Your task to perform on an android device: What is the news today? Image 0: 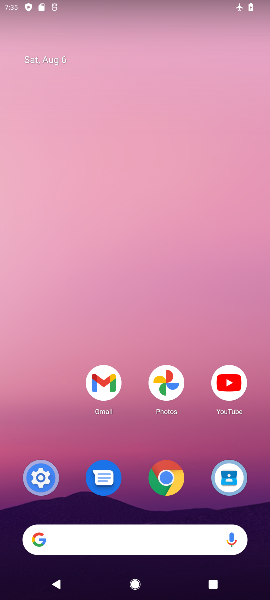
Step 0: press home button
Your task to perform on an android device: What is the news today? Image 1: 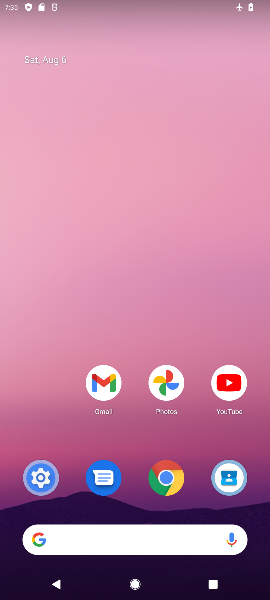
Step 1: click (38, 536)
Your task to perform on an android device: What is the news today? Image 2: 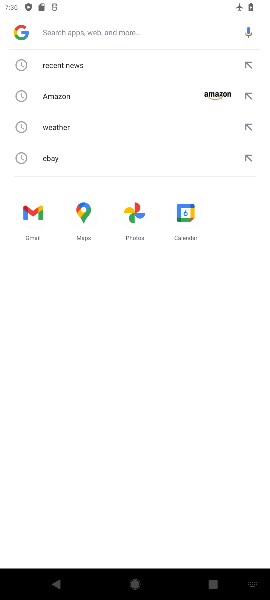
Step 2: type "news today"
Your task to perform on an android device: What is the news today? Image 3: 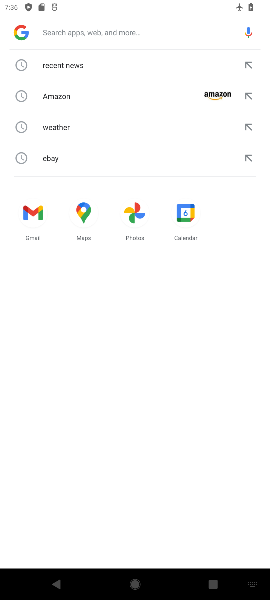
Step 3: click (72, 28)
Your task to perform on an android device: What is the news today? Image 4: 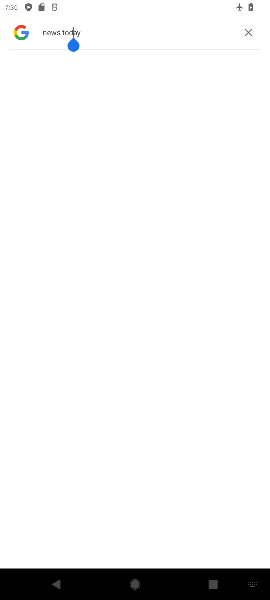
Step 4: press enter
Your task to perform on an android device: What is the news today? Image 5: 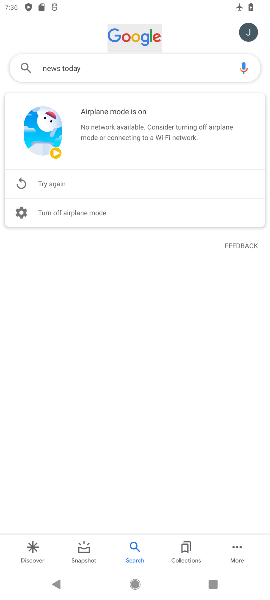
Step 5: drag from (175, 2) to (172, 588)
Your task to perform on an android device: What is the news today? Image 6: 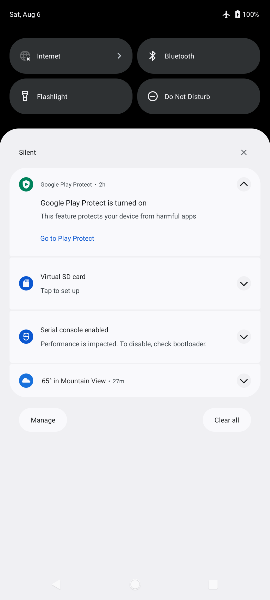
Step 6: drag from (137, 143) to (142, 527)
Your task to perform on an android device: What is the news today? Image 7: 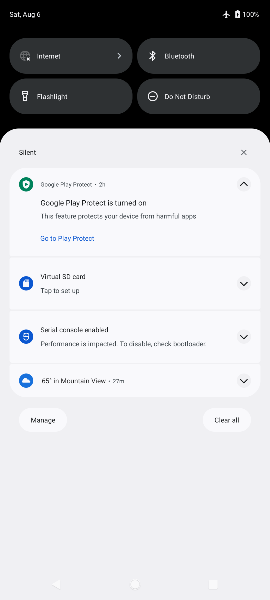
Step 7: drag from (140, 142) to (155, 493)
Your task to perform on an android device: What is the news today? Image 8: 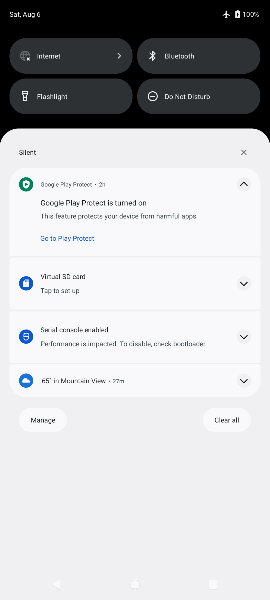
Step 8: drag from (126, 135) to (103, 591)
Your task to perform on an android device: What is the news today? Image 9: 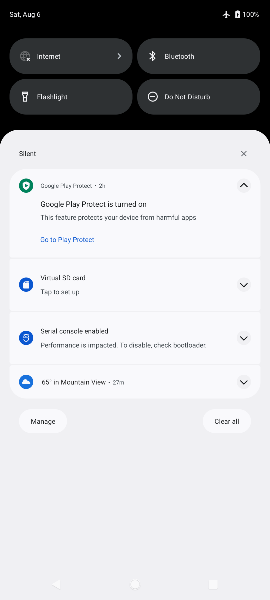
Step 9: click (197, 228)
Your task to perform on an android device: What is the news today? Image 10: 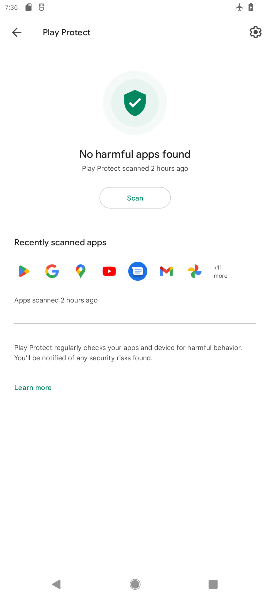
Step 10: drag from (140, 7) to (180, 527)
Your task to perform on an android device: What is the news today? Image 11: 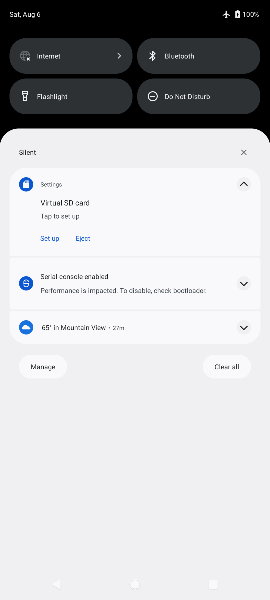
Step 11: drag from (167, 160) to (253, 557)
Your task to perform on an android device: What is the news today? Image 12: 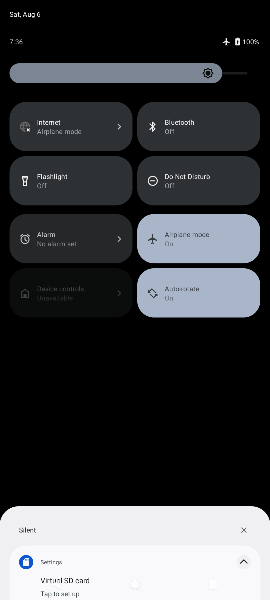
Step 12: drag from (149, 542) to (176, 599)
Your task to perform on an android device: What is the news today? Image 13: 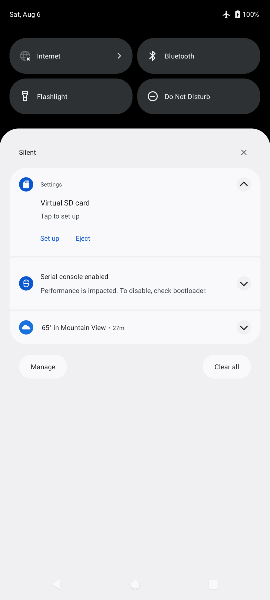
Step 13: click (239, 170)
Your task to perform on an android device: What is the news today? Image 14: 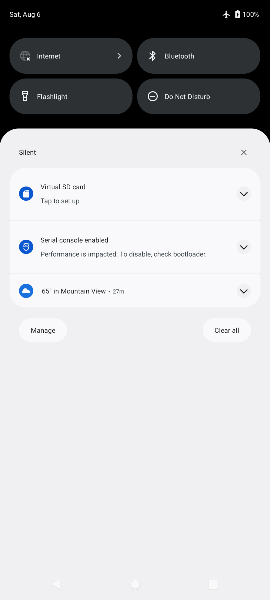
Step 14: click (243, 149)
Your task to perform on an android device: What is the news today? Image 15: 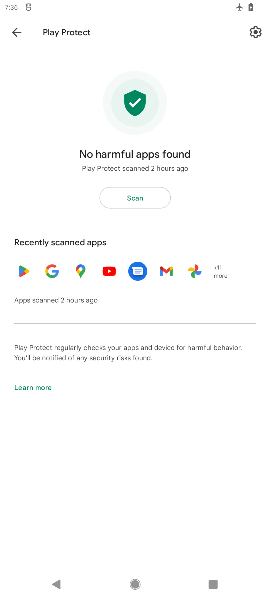
Step 15: drag from (160, 14) to (144, 544)
Your task to perform on an android device: What is the news today? Image 16: 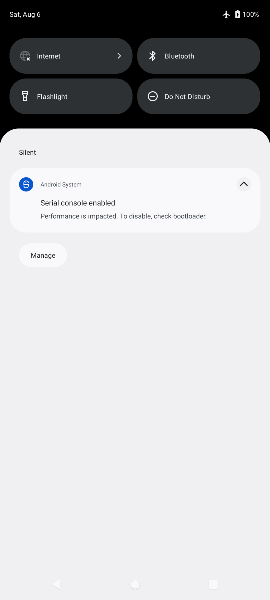
Step 16: drag from (145, 138) to (259, 299)
Your task to perform on an android device: What is the news today? Image 17: 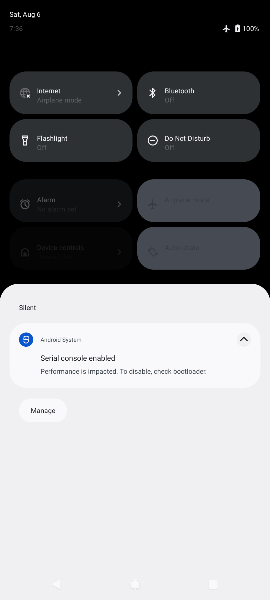
Step 17: click (219, 211)
Your task to perform on an android device: What is the news today? Image 18: 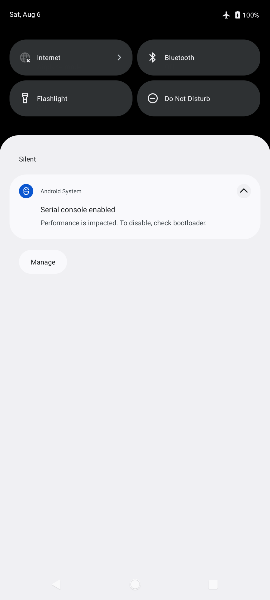
Step 18: click (218, 223)
Your task to perform on an android device: What is the news today? Image 19: 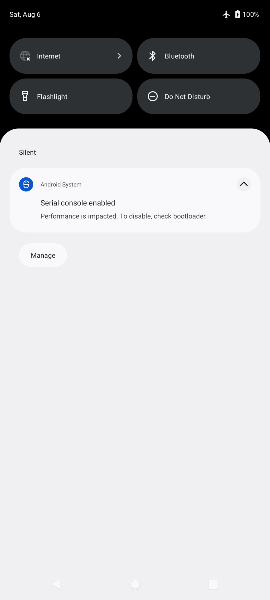
Step 19: drag from (159, 152) to (214, 576)
Your task to perform on an android device: What is the news today? Image 20: 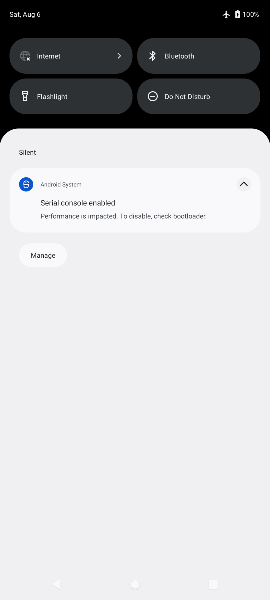
Step 20: press home button
Your task to perform on an android device: What is the news today? Image 21: 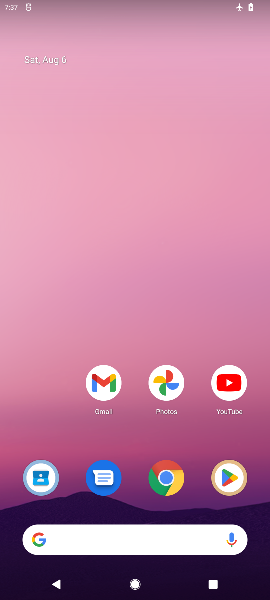
Step 21: drag from (147, 323) to (243, 414)
Your task to perform on an android device: What is the news today? Image 22: 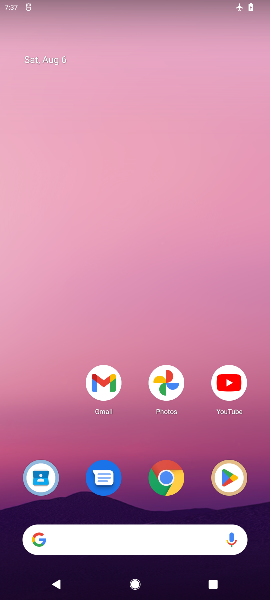
Step 22: drag from (55, 397) to (70, 40)
Your task to perform on an android device: What is the news today? Image 23: 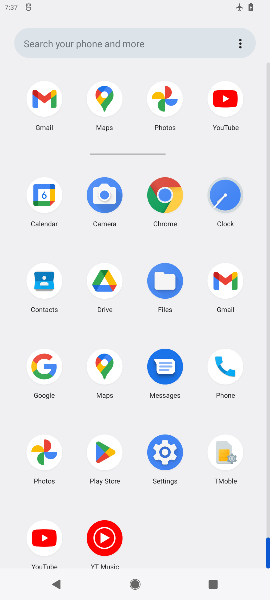
Step 23: click (166, 453)
Your task to perform on an android device: What is the news today? Image 24: 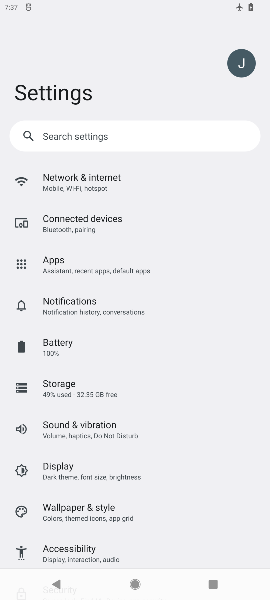
Step 24: click (74, 177)
Your task to perform on an android device: What is the news today? Image 25: 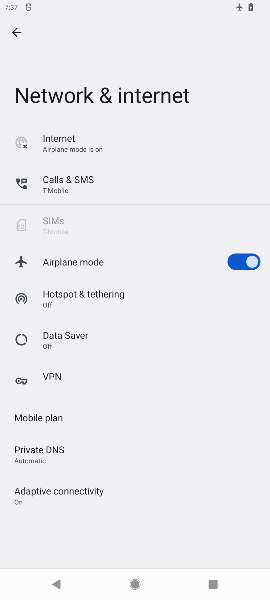
Step 25: click (238, 261)
Your task to perform on an android device: What is the news today? Image 26: 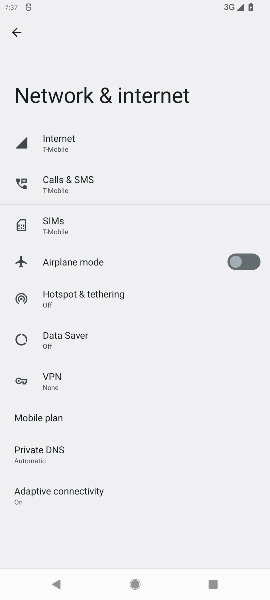
Step 26: press home button
Your task to perform on an android device: What is the news today? Image 27: 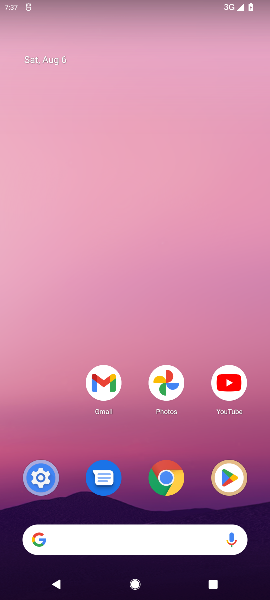
Step 27: click (36, 540)
Your task to perform on an android device: What is the news today? Image 28: 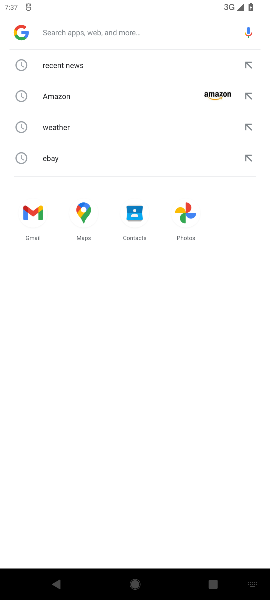
Step 28: type "news today"
Your task to perform on an android device: What is the news today? Image 29: 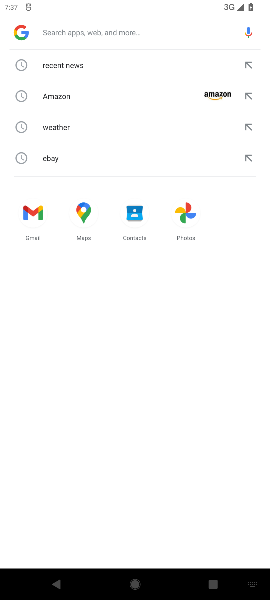
Step 29: click (99, 29)
Your task to perform on an android device: What is the news today? Image 30: 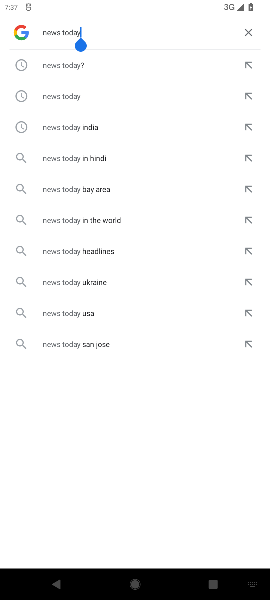
Step 30: press enter
Your task to perform on an android device: What is the news today? Image 31: 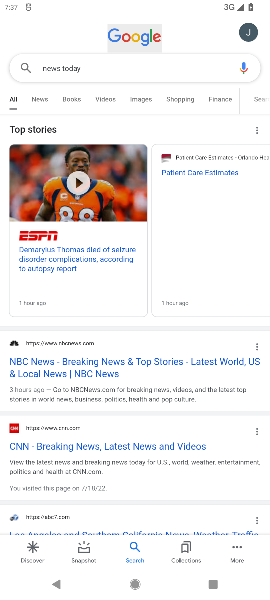
Step 31: task complete